Your task to perform on an android device: Open Android settings Image 0: 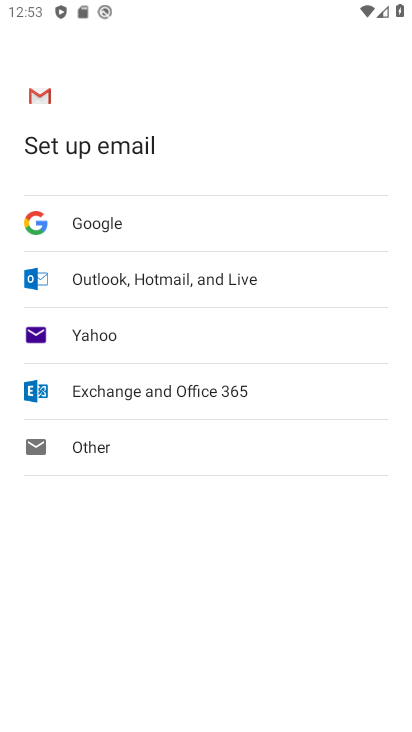
Step 0: press home button
Your task to perform on an android device: Open Android settings Image 1: 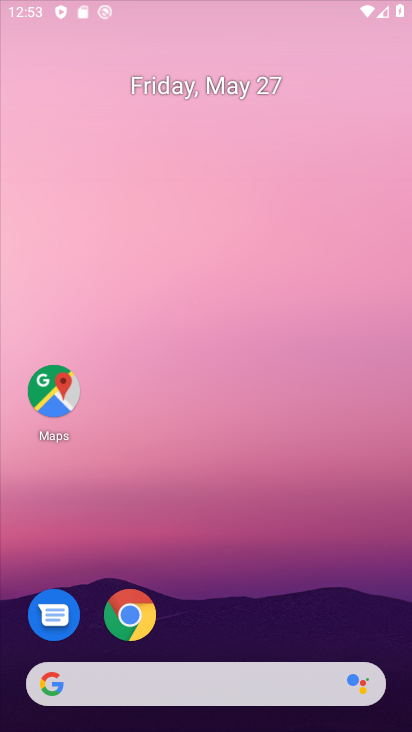
Step 1: drag from (272, 597) to (301, 160)
Your task to perform on an android device: Open Android settings Image 2: 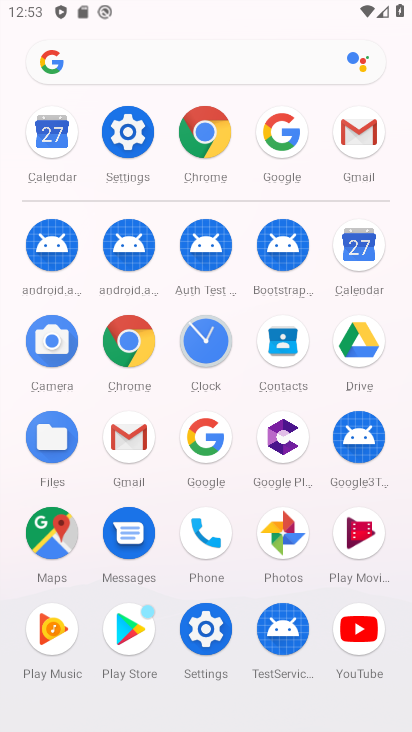
Step 2: click (219, 630)
Your task to perform on an android device: Open Android settings Image 3: 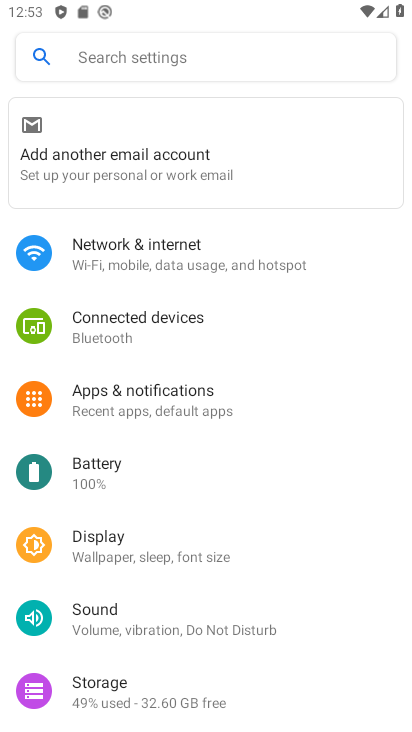
Step 3: task complete